Your task to perform on an android device: Search for the best rated 3d printer on Amazon. Image 0: 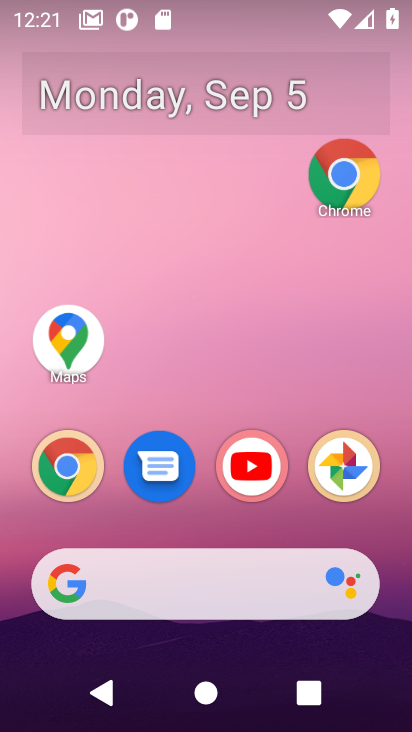
Step 0: drag from (266, 330) to (300, 72)
Your task to perform on an android device: Search for the best rated 3d printer on Amazon. Image 1: 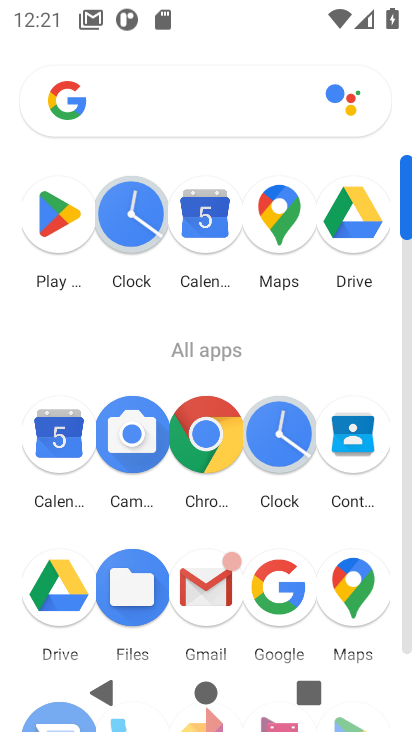
Step 1: click (205, 435)
Your task to perform on an android device: Search for the best rated 3d printer on Amazon. Image 2: 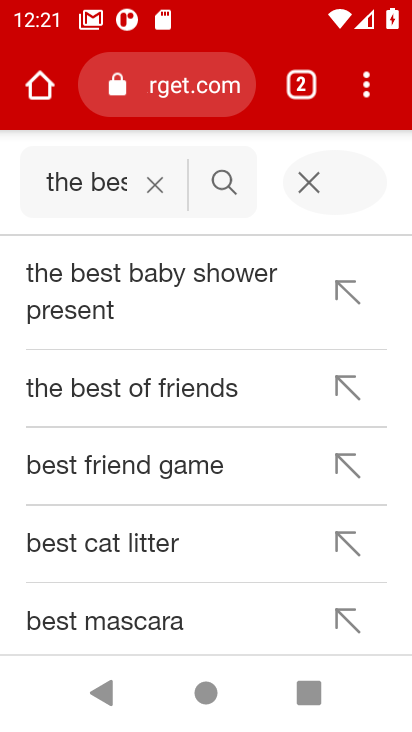
Step 2: click (195, 82)
Your task to perform on an android device: Search for the best rated 3d printer on Amazon. Image 3: 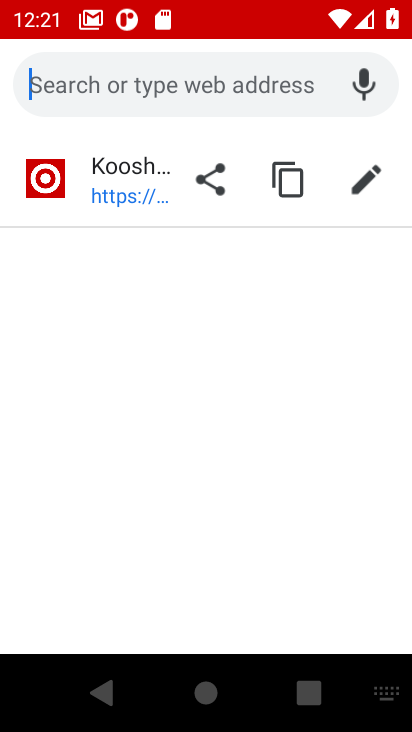
Step 3: type " Amazon"
Your task to perform on an android device: Search for the best rated 3d printer on Amazon. Image 4: 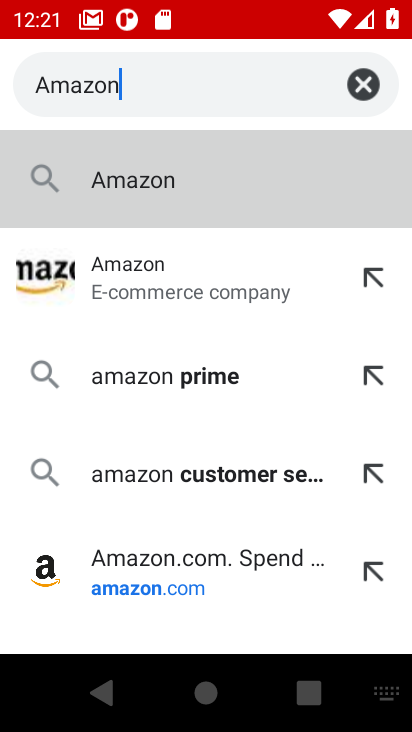
Step 4: click (124, 181)
Your task to perform on an android device: Search for the best rated 3d printer on Amazon. Image 5: 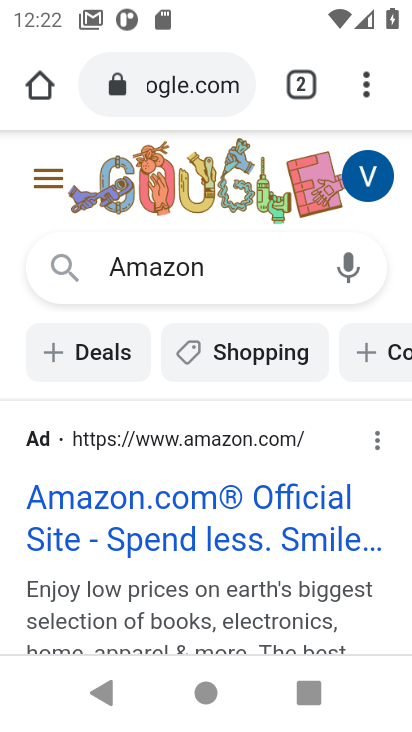
Step 5: click (181, 498)
Your task to perform on an android device: Search for the best rated 3d printer on Amazon. Image 6: 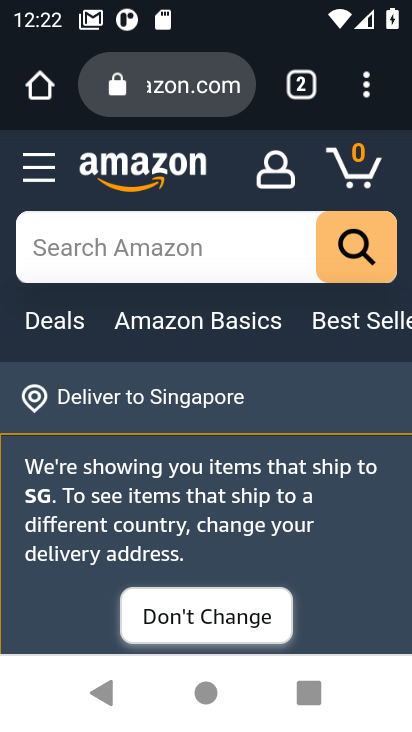
Step 6: click (95, 237)
Your task to perform on an android device: Search for the best rated 3d printer on Amazon. Image 7: 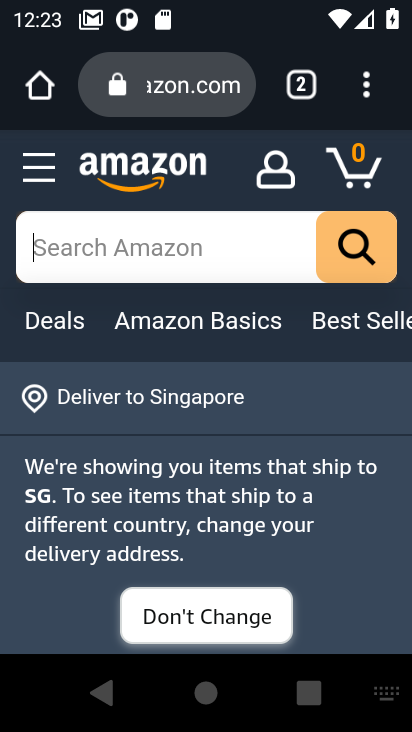
Step 7: type " best rated 3d printer "
Your task to perform on an android device: Search for the best rated 3d printer on Amazon. Image 8: 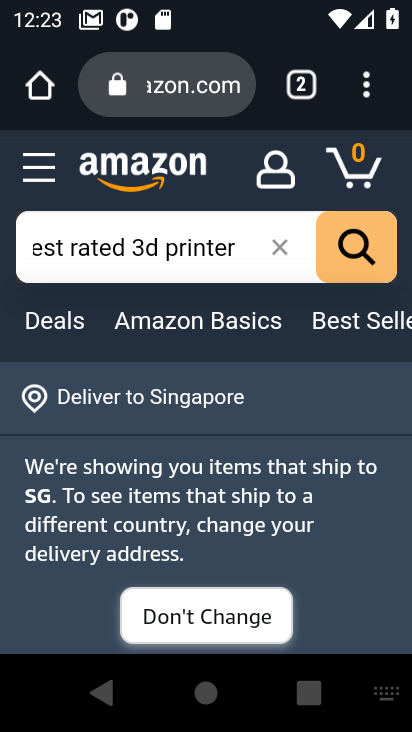
Step 8: task complete